Your task to perform on an android device: Open sound settings Image 0: 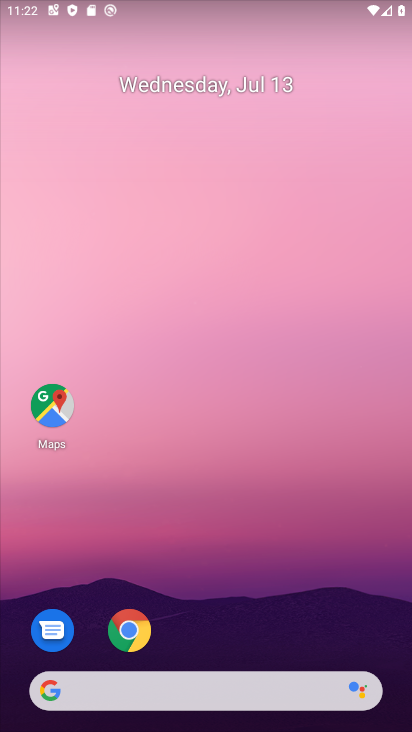
Step 0: drag from (355, 635) to (384, 190)
Your task to perform on an android device: Open sound settings Image 1: 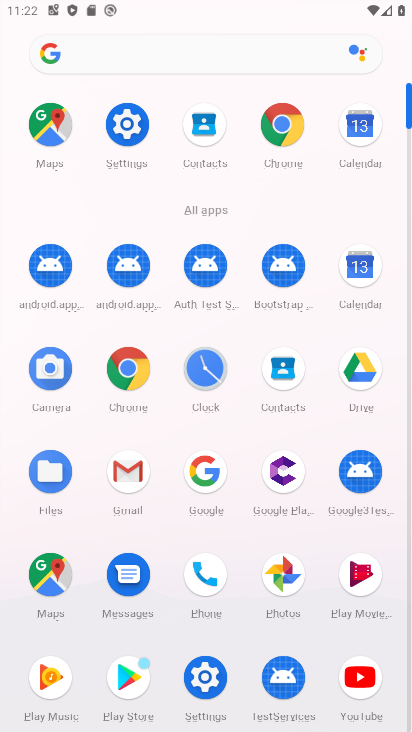
Step 1: click (129, 124)
Your task to perform on an android device: Open sound settings Image 2: 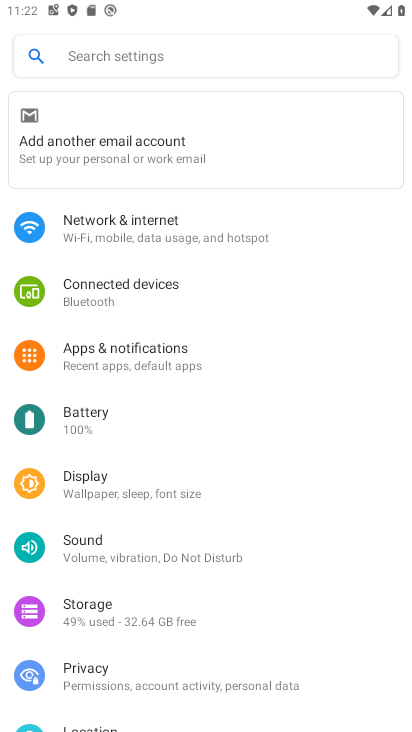
Step 2: drag from (336, 564) to (338, 423)
Your task to perform on an android device: Open sound settings Image 3: 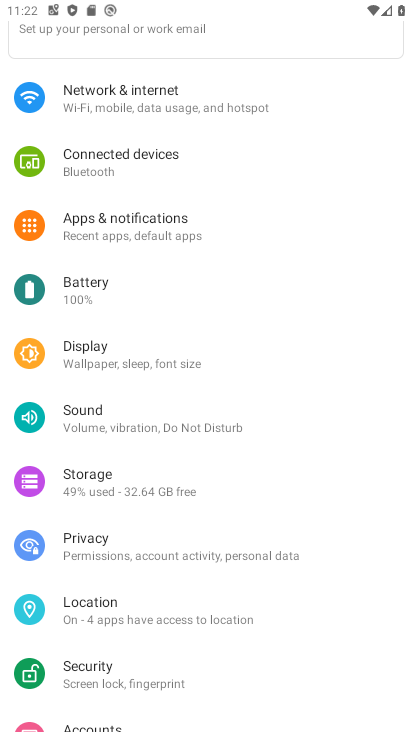
Step 3: drag from (355, 580) to (368, 419)
Your task to perform on an android device: Open sound settings Image 4: 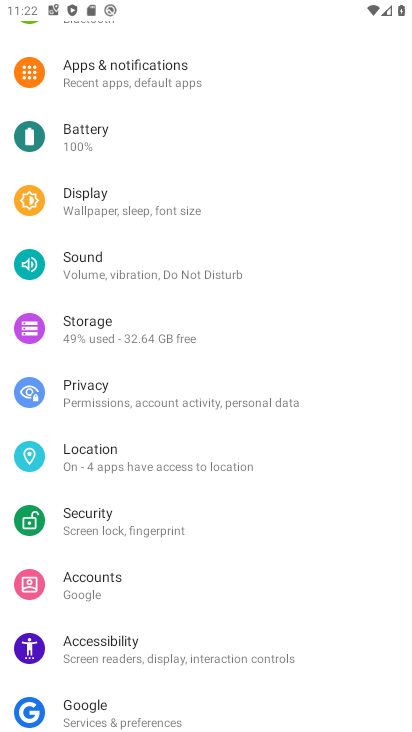
Step 4: drag from (325, 578) to (332, 381)
Your task to perform on an android device: Open sound settings Image 5: 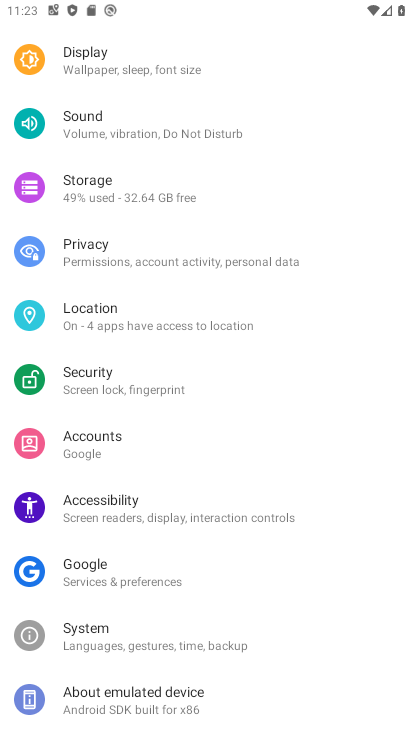
Step 5: drag from (343, 261) to (346, 400)
Your task to perform on an android device: Open sound settings Image 6: 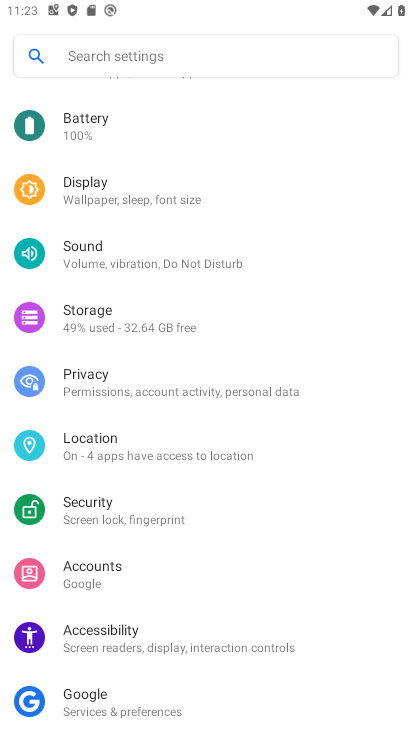
Step 6: drag from (342, 246) to (338, 371)
Your task to perform on an android device: Open sound settings Image 7: 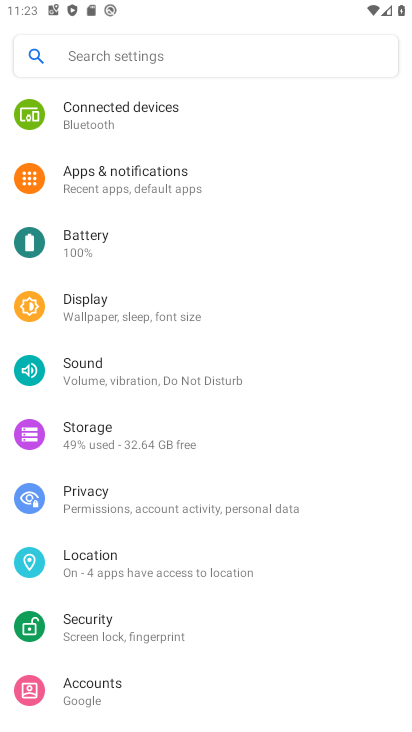
Step 7: drag from (335, 228) to (346, 399)
Your task to perform on an android device: Open sound settings Image 8: 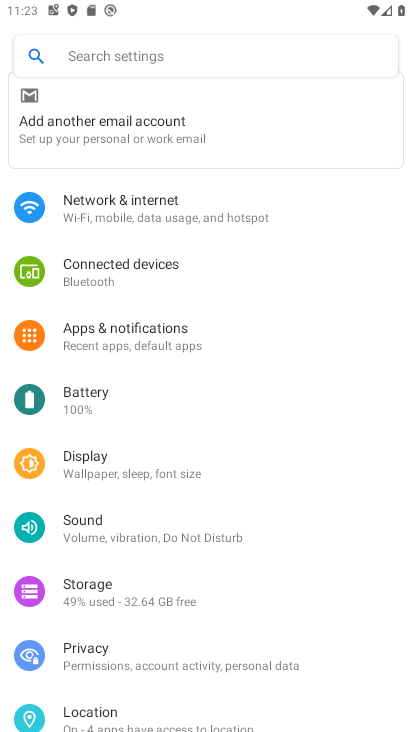
Step 8: drag from (331, 252) to (337, 450)
Your task to perform on an android device: Open sound settings Image 9: 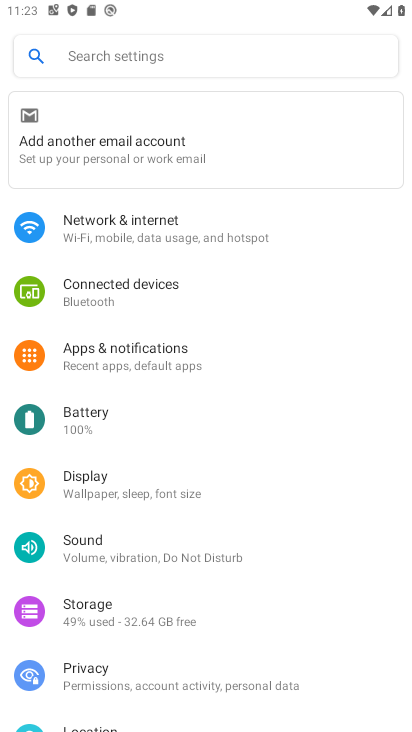
Step 9: drag from (320, 507) to (318, 356)
Your task to perform on an android device: Open sound settings Image 10: 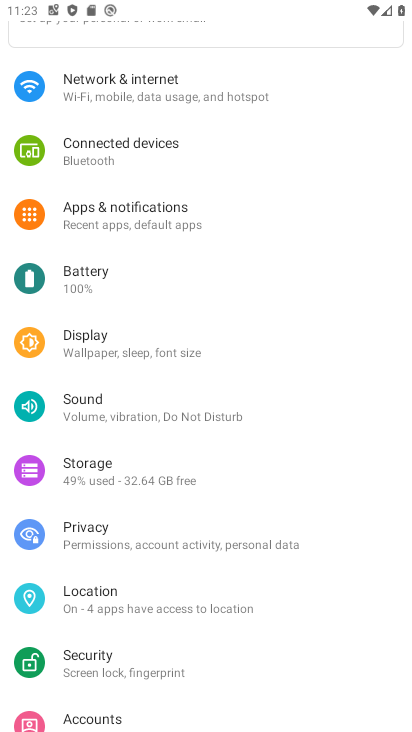
Step 10: drag from (316, 486) to (312, 347)
Your task to perform on an android device: Open sound settings Image 11: 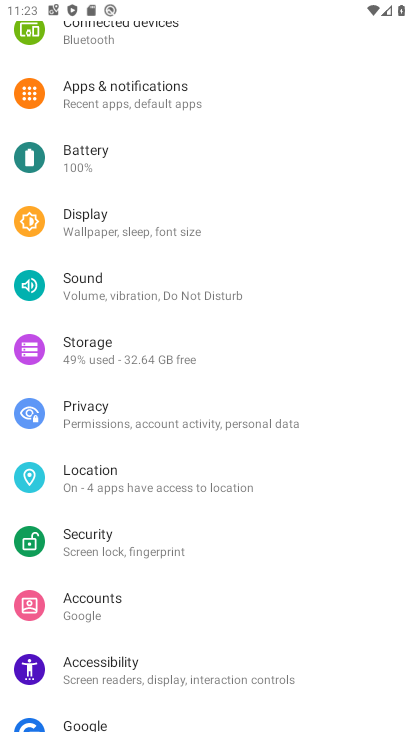
Step 11: drag from (311, 526) to (314, 401)
Your task to perform on an android device: Open sound settings Image 12: 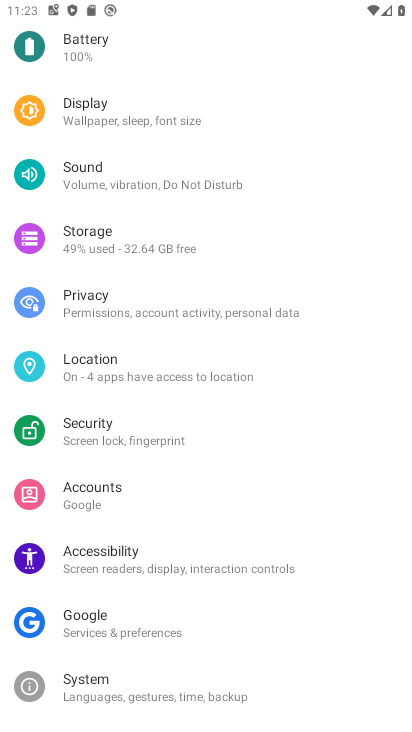
Step 12: drag from (308, 589) to (310, 471)
Your task to perform on an android device: Open sound settings Image 13: 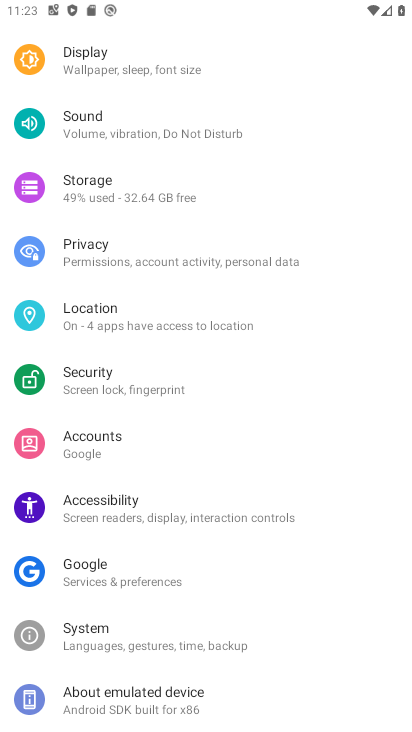
Step 13: drag from (315, 305) to (313, 487)
Your task to perform on an android device: Open sound settings Image 14: 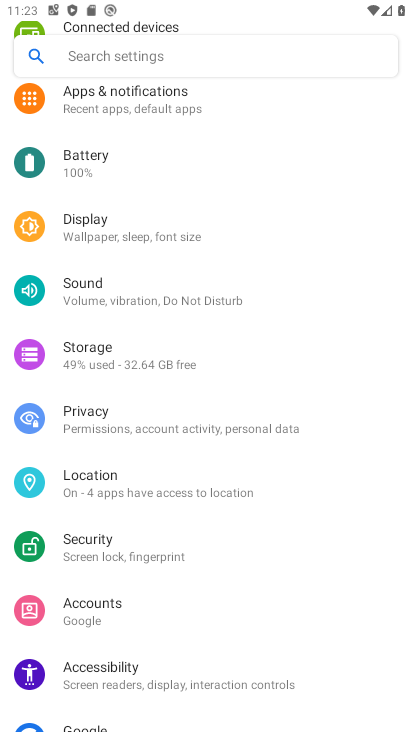
Step 14: drag from (309, 203) to (316, 395)
Your task to perform on an android device: Open sound settings Image 15: 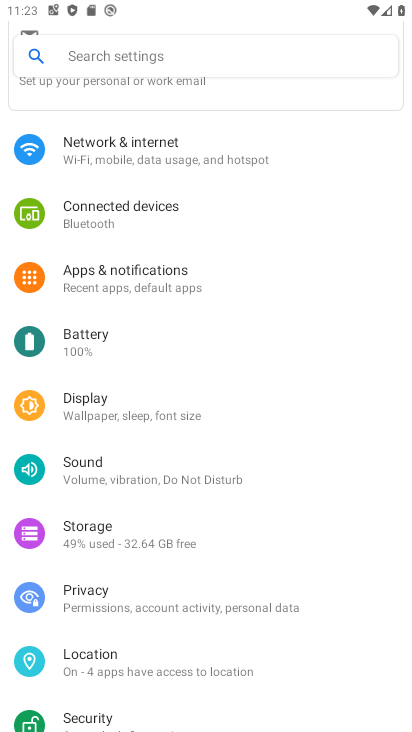
Step 15: click (169, 484)
Your task to perform on an android device: Open sound settings Image 16: 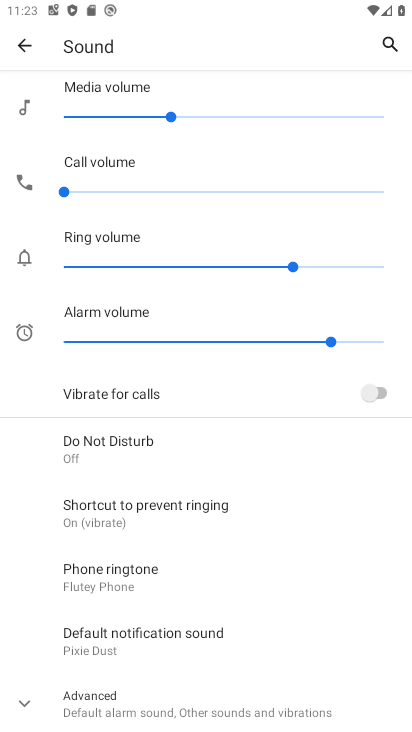
Step 16: task complete